Your task to perform on an android device: change the upload size in google photos Image 0: 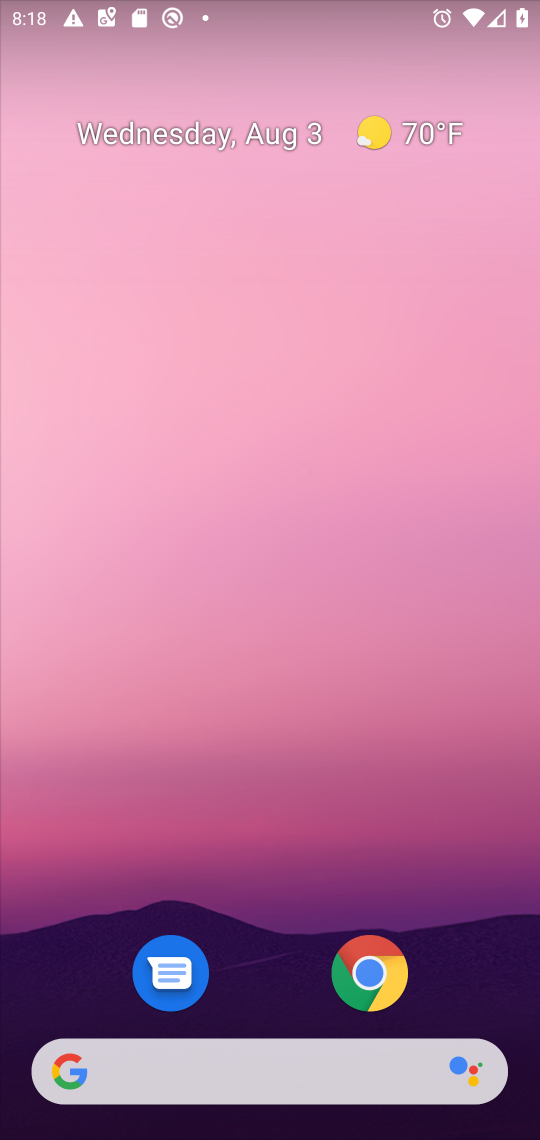
Step 0: press home button
Your task to perform on an android device: change the upload size in google photos Image 1: 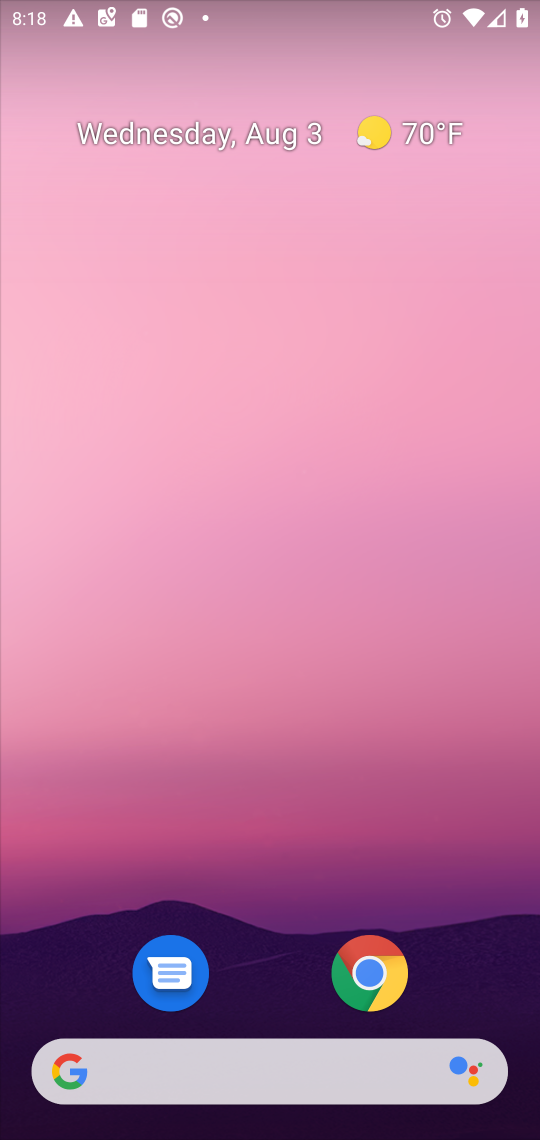
Step 1: press home button
Your task to perform on an android device: change the upload size in google photos Image 2: 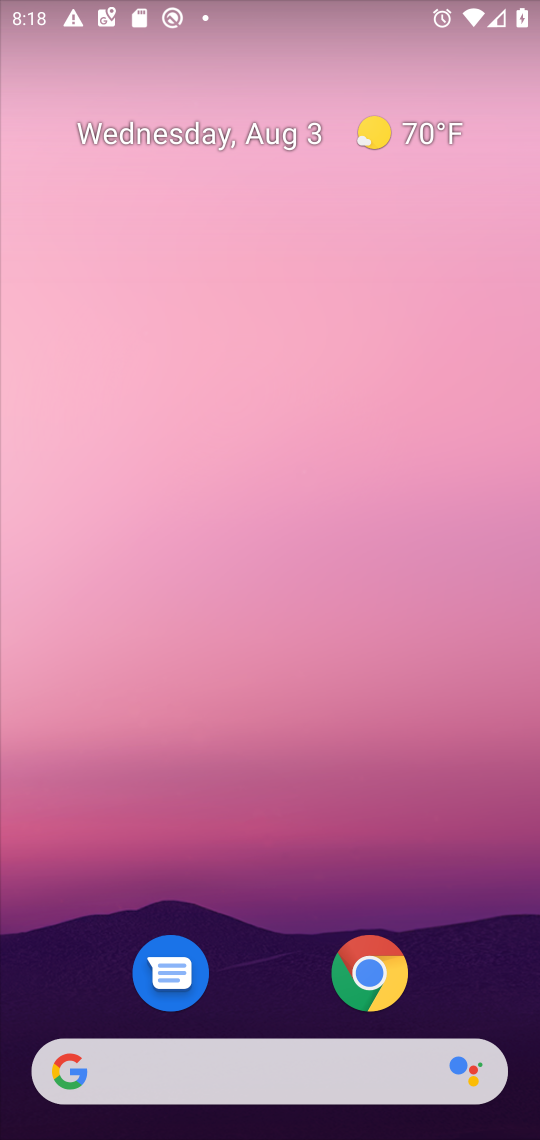
Step 2: drag from (268, 1010) to (325, 58)
Your task to perform on an android device: change the upload size in google photos Image 3: 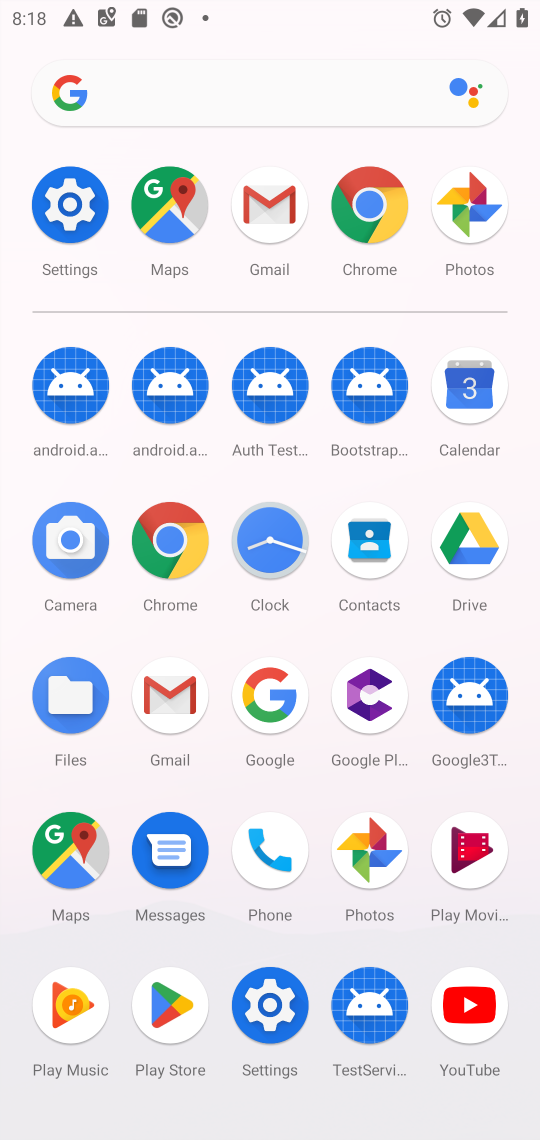
Step 3: click (373, 844)
Your task to perform on an android device: change the upload size in google photos Image 4: 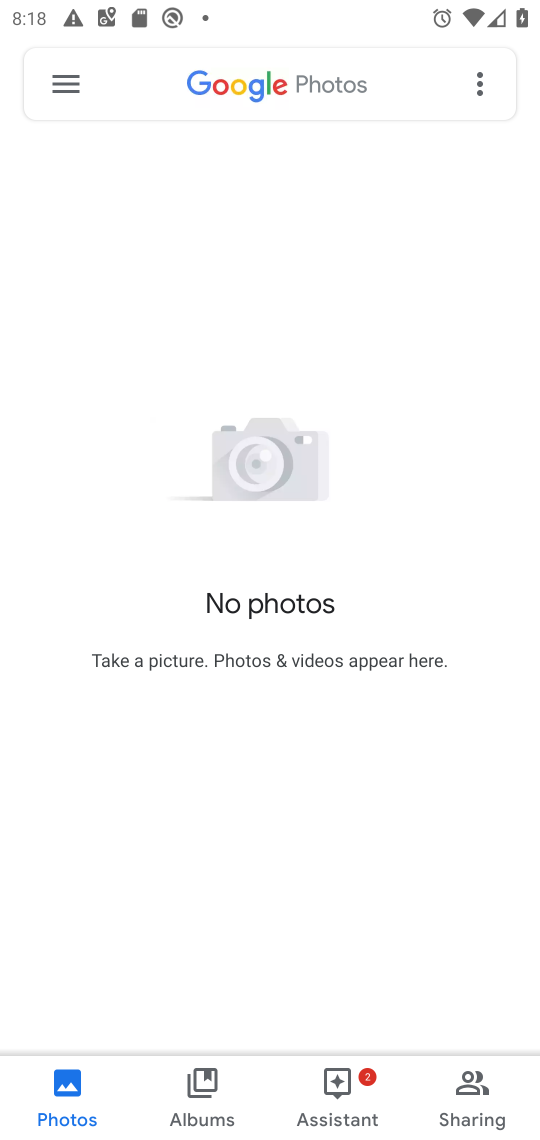
Step 4: click (63, 69)
Your task to perform on an android device: change the upload size in google photos Image 5: 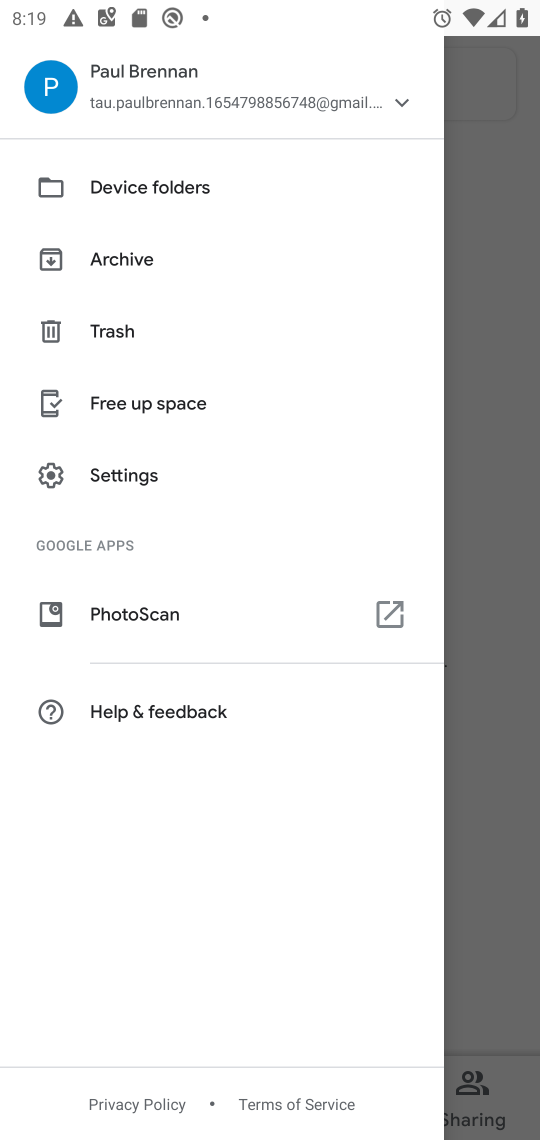
Step 5: click (141, 488)
Your task to perform on an android device: change the upload size in google photos Image 6: 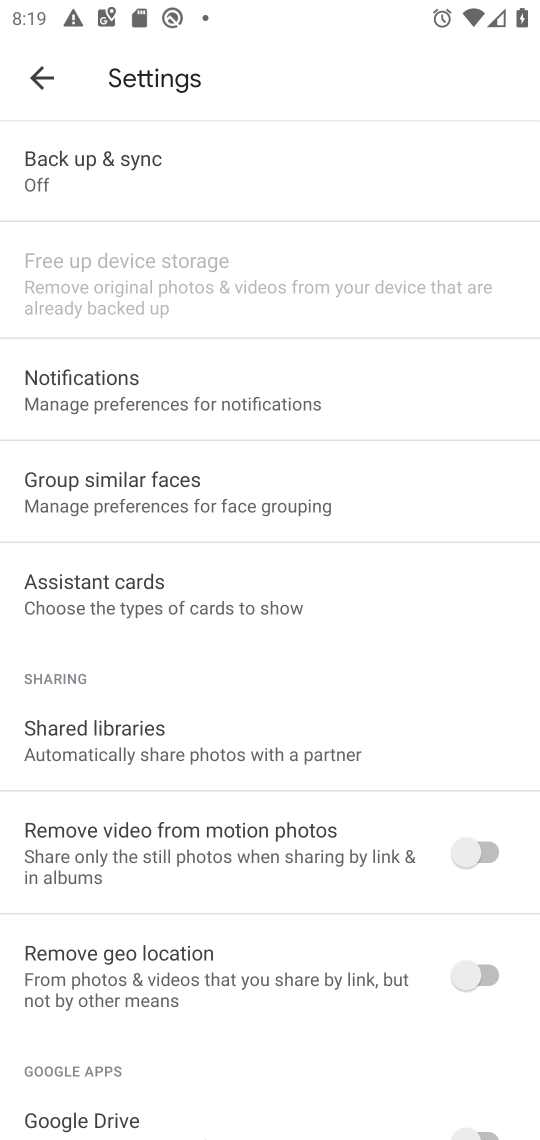
Step 6: click (115, 176)
Your task to perform on an android device: change the upload size in google photos Image 7: 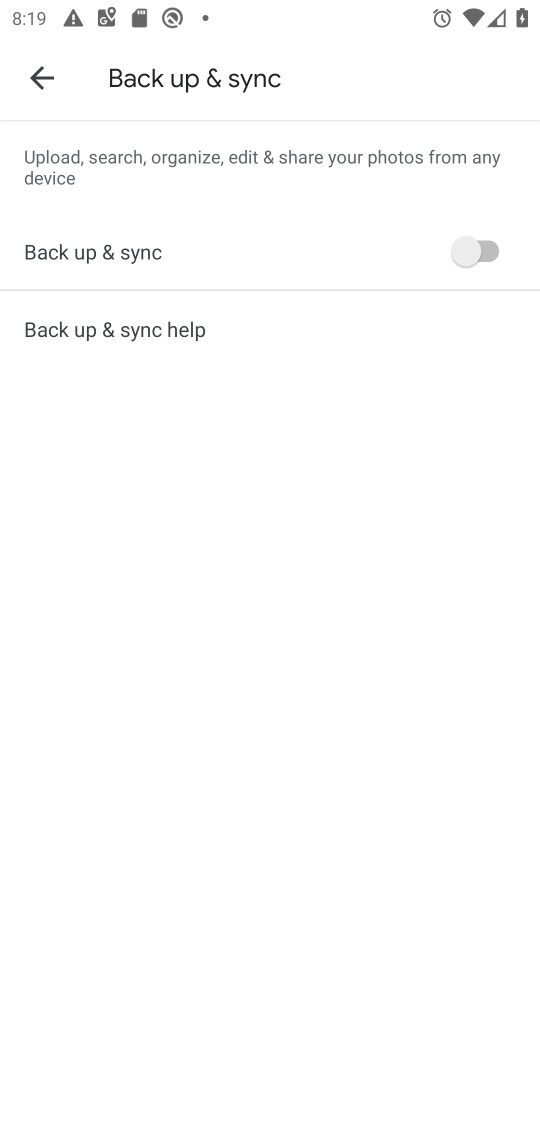
Step 7: click (481, 251)
Your task to perform on an android device: change the upload size in google photos Image 8: 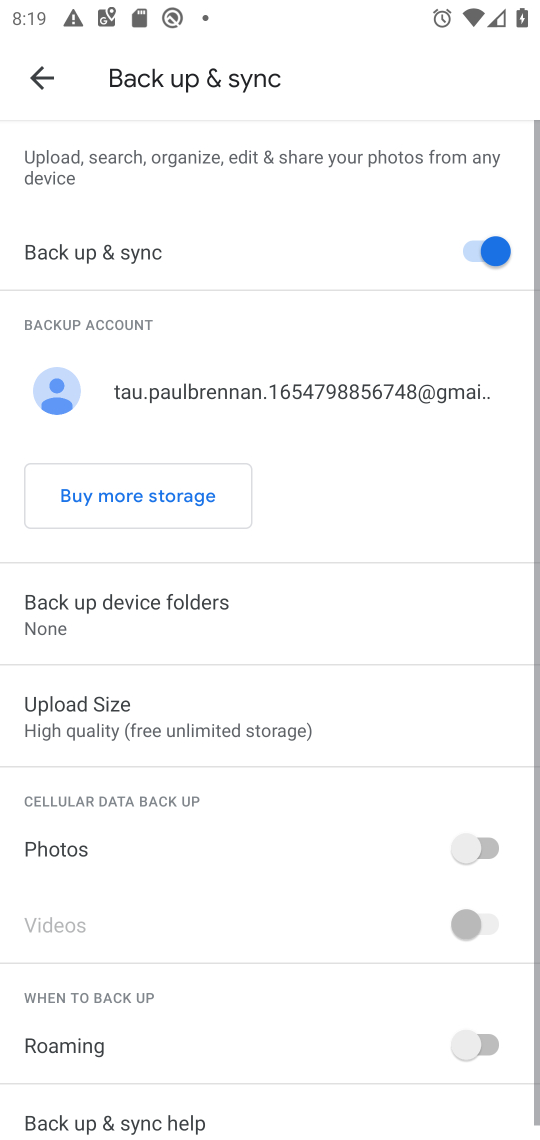
Step 8: click (143, 705)
Your task to perform on an android device: change the upload size in google photos Image 9: 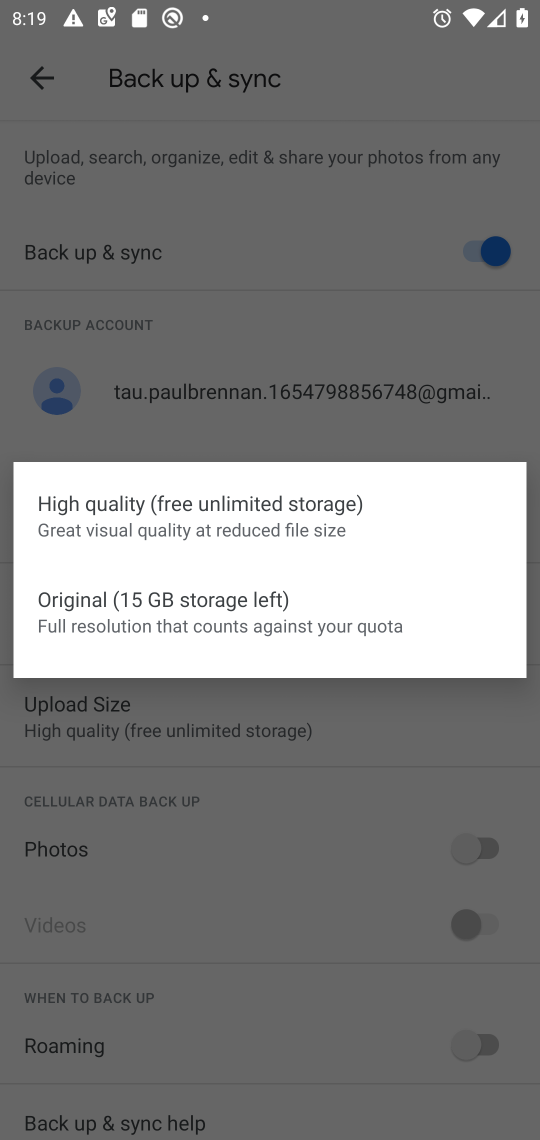
Step 9: click (154, 638)
Your task to perform on an android device: change the upload size in google photos Image 10: 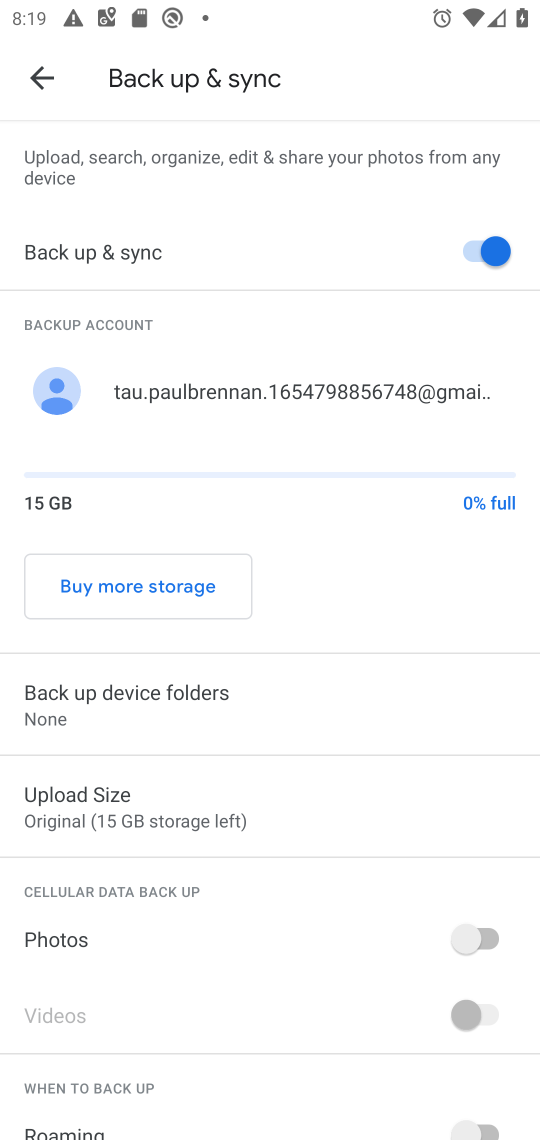
Step 10: task complete